Your task to perform on an android device: delete browsing data in the chrome app Image 0: 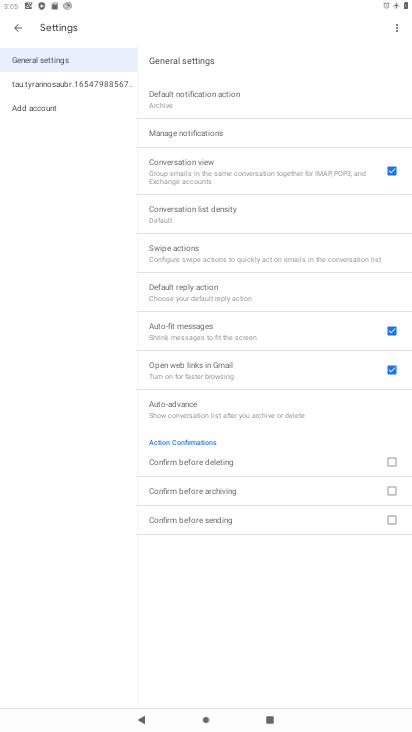
Step 0: press home button
Your task to perform on an android device: delete browsing data in the chrome app Image 1: 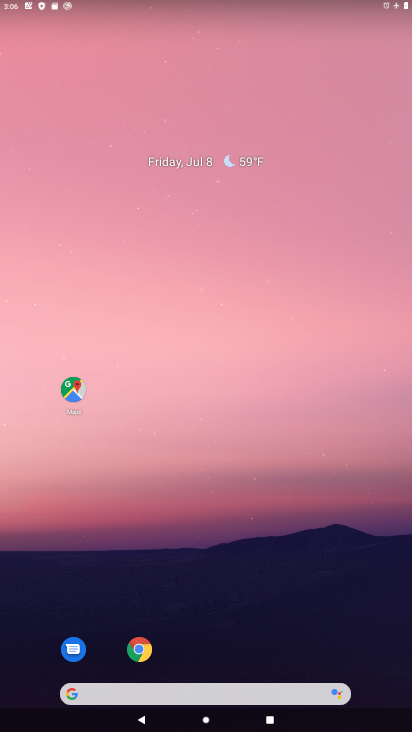
Step 1: click (140, 644)
Your task to perform on an android device: delete browsing data in the chrome app Image 2: 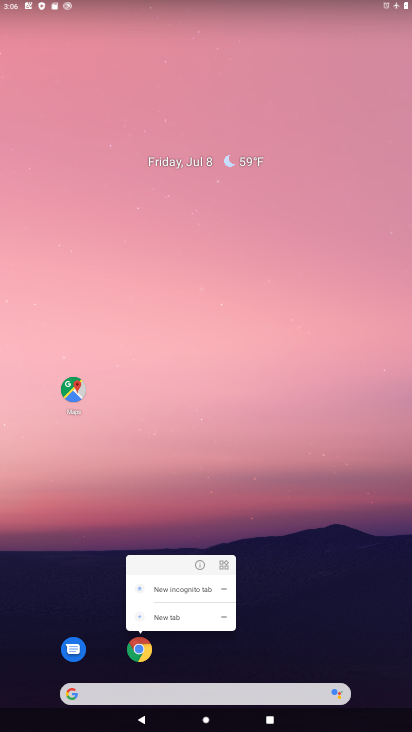
Step 2: click (309, 548)
Your task to perform on an android device: delete browsing data in the chrome app Image 3: 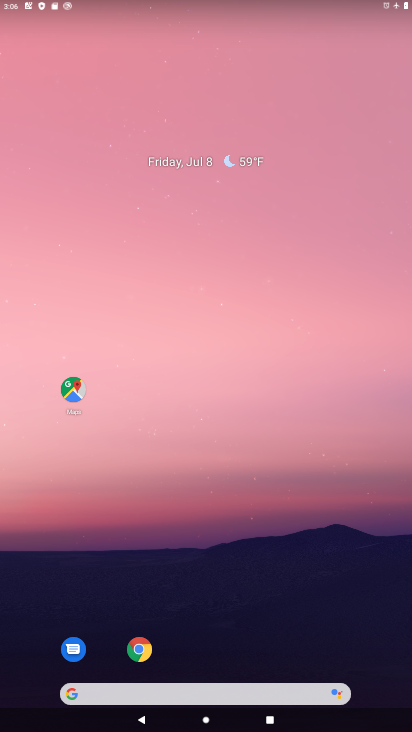
Step 3: click (349, 609)
Your task to perform on an android device: delete browsing data in the chrome app Image 4: 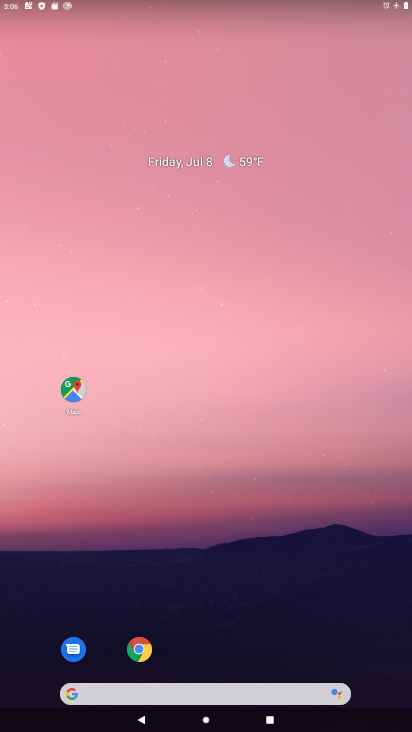
Step 4: drag from (336, 612) to (306, 110)
Your task to perform on an android device: delete browsing data in the chrome app Image 5: 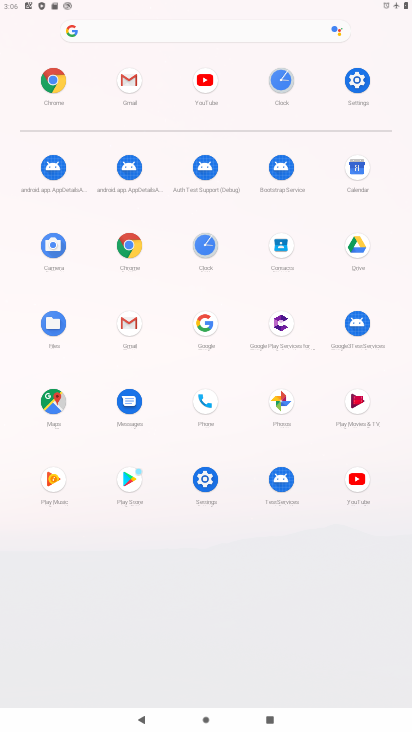
Step 5: click (128, 248)
Your task to perform on an android device: delete browsing data in the chrome app Image 6: 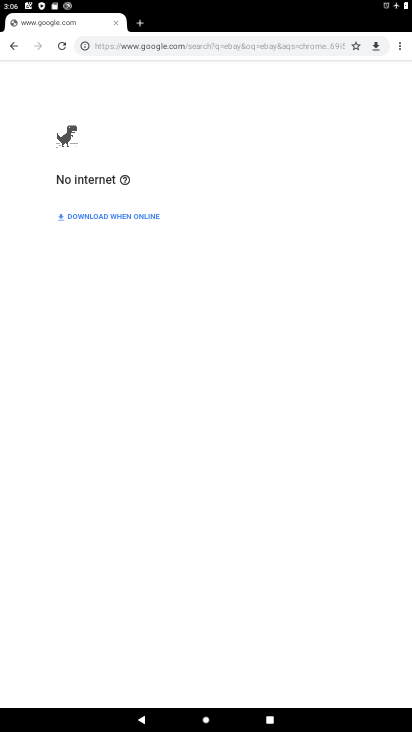
Step 6: drag from (405, 45) to (313, 148)
Your task to perform on an android device: delete browsing data in the chrome app Image 7: 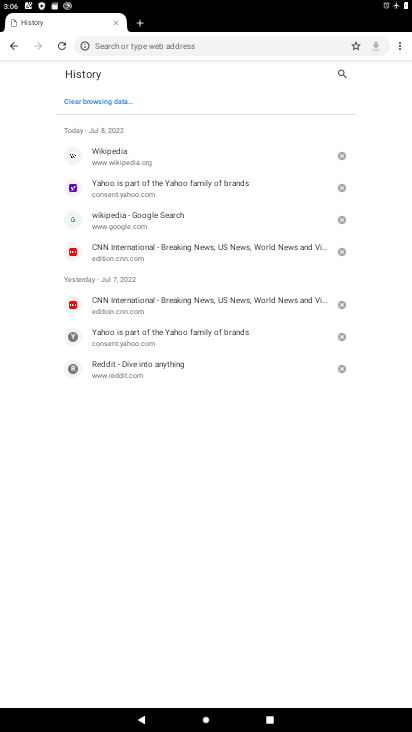
Step 7: click (73, 101)
Your task to perform on an android device: delete browsing data in the chrome app Image 8: 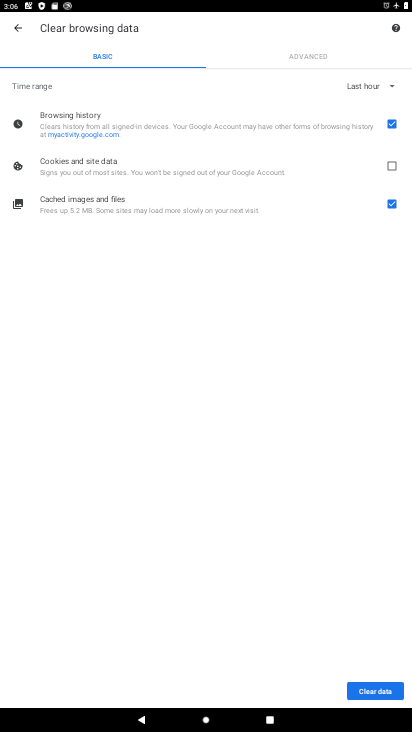
Step 8: click (351, 92)
Your task to perform on an android device: delete browsing data in the chrome app Image 9: 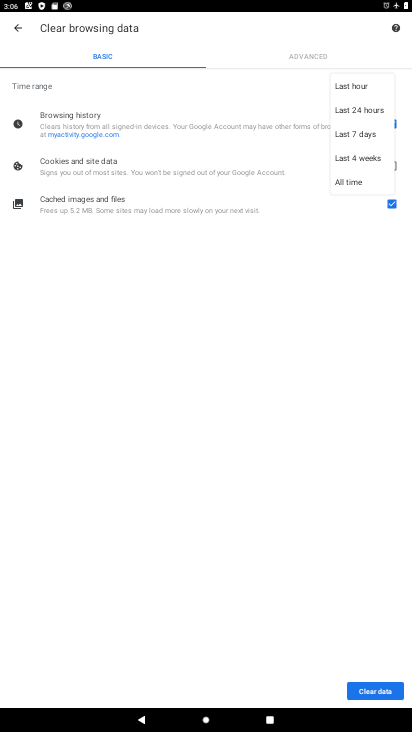
Step 9: click (351, 184)
Your task to perform on an android device: delete browsing data in the chrome app Image 10: 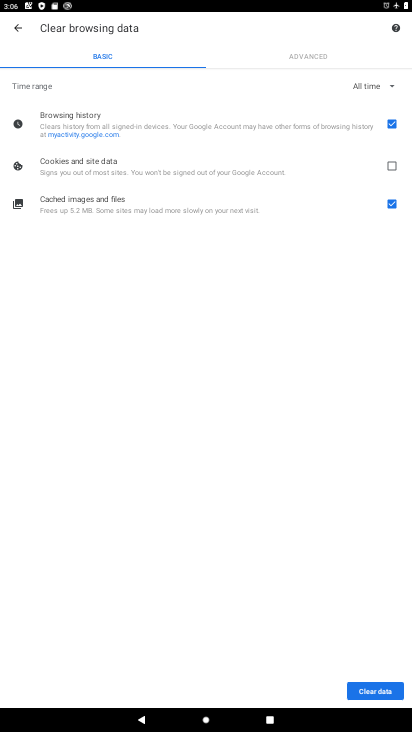
Step 10: click (386, 164)
Your task to perform on an android device: delete browsing data in the chrome app Image 11: 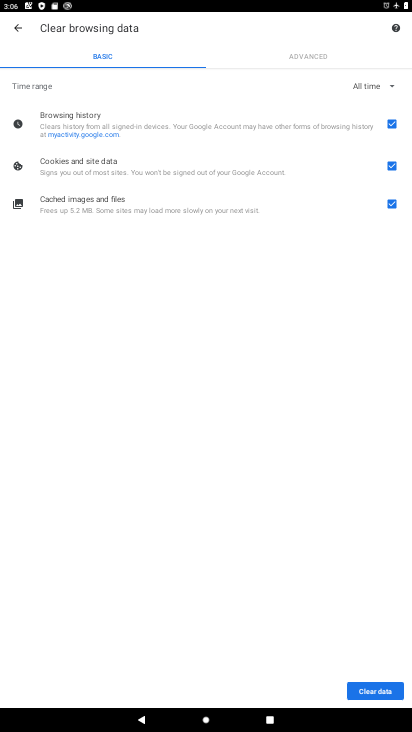
Step 11: click (375, 685)
Your task to perform on an android device: delete browsing data in the chrome app Image 12: 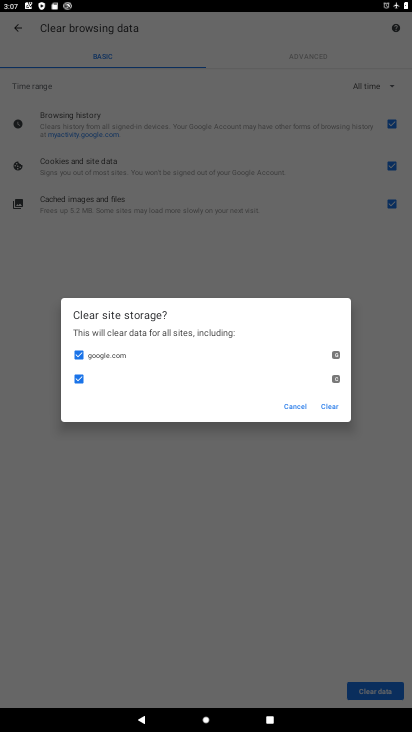
Step 12: click (329, 407)
Your task to perform on an android device: delete browsing data in the chrome app Image 13: 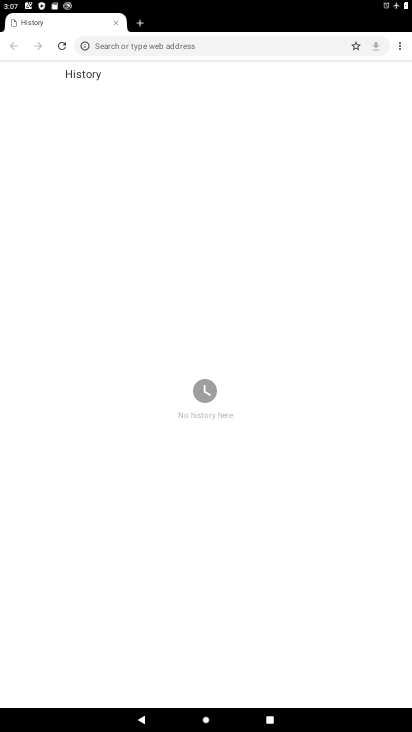
Step 13: task complete